Your task to perform on an android device: turn pop-ups on in chrome Image 0: 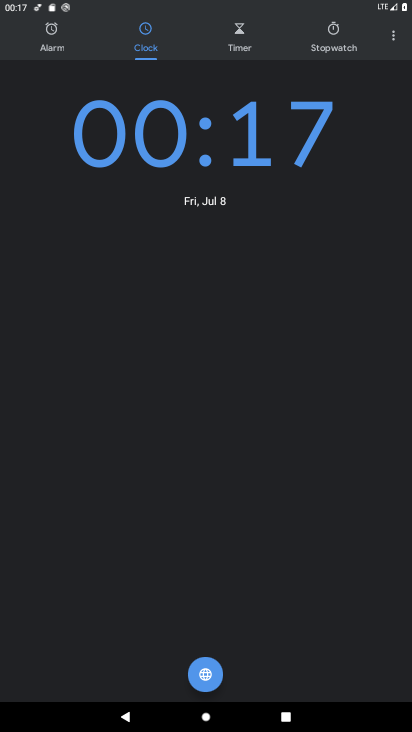
Step 0: press home button
Your task to perform on an android device: turn pop-ups on in chrome Image 1: 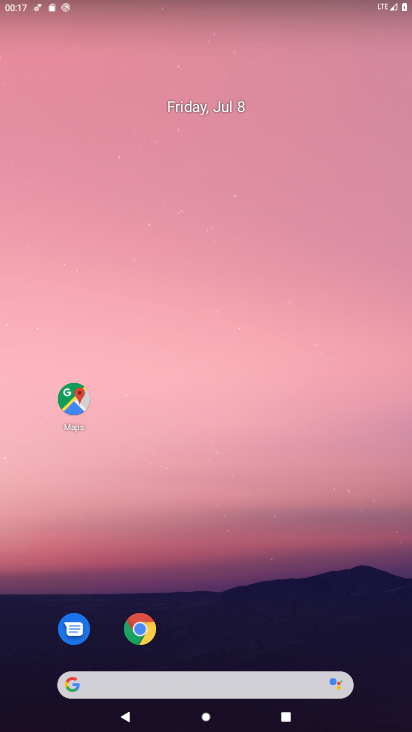
Step 1: click (146, 632)
Your task to perform on an android device: turn pop-ups on in chrome Image 2: 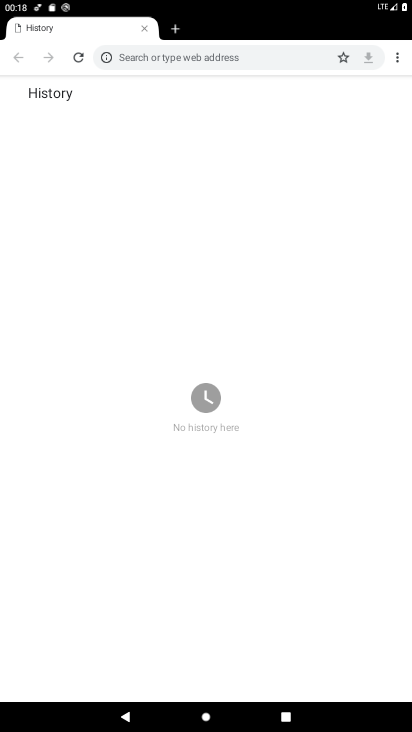
Step 2: click (403, 54)
Your task to perform on an android device: turn pop-ups on in chrome Image 3: 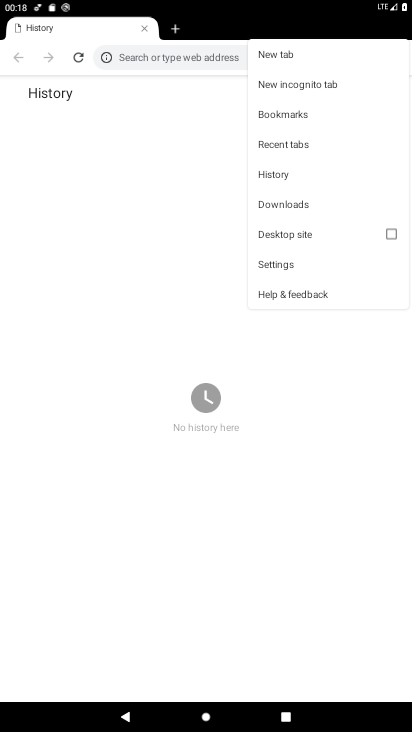
Step 3: click (276, 274)
Your task to perform on an android device: turn pop-ups on in chrome Image 4: 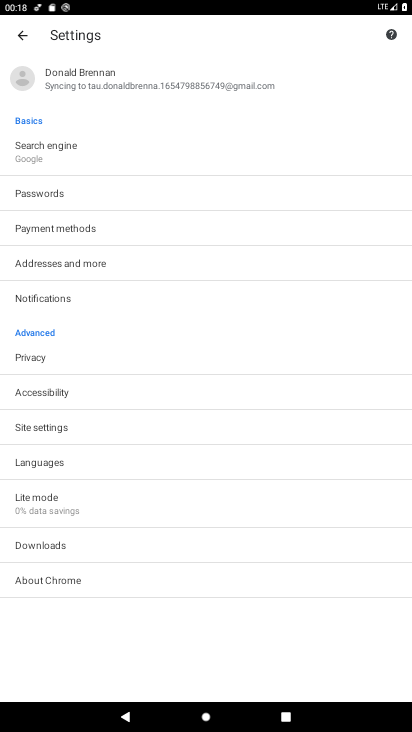
Step 4: click (99, 423)
Your task to perform on an android device: turn pop-ups on in chrome Image 5: 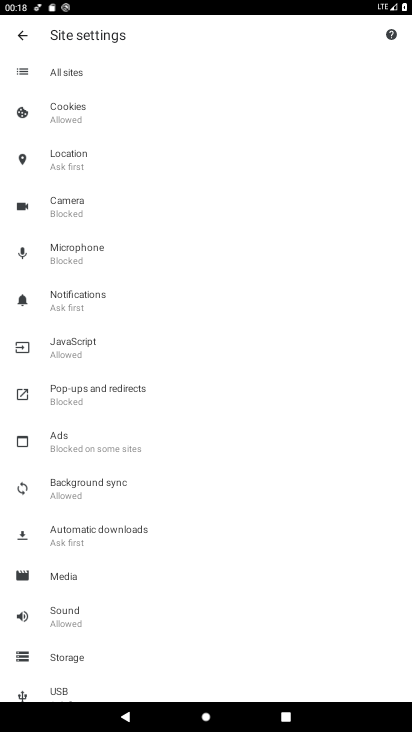
Step 5: click (111, 396)
Your task to perform on an android device: turn pop-ups on in chrome Image 6: 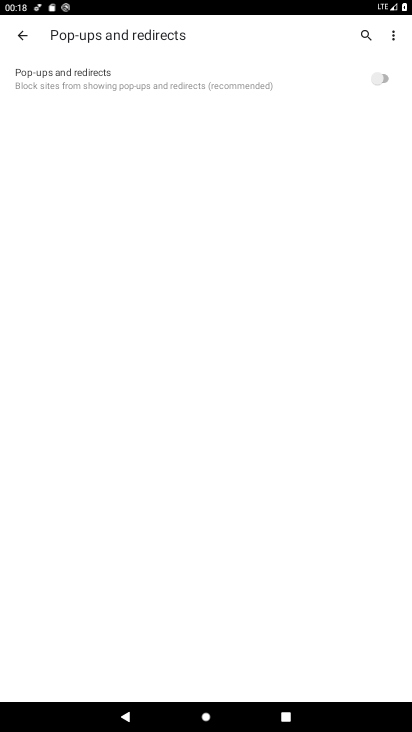
Step 6: click (376, 83)
Your task to perform on an android device: turn pop-ups on in chrome Image 7: 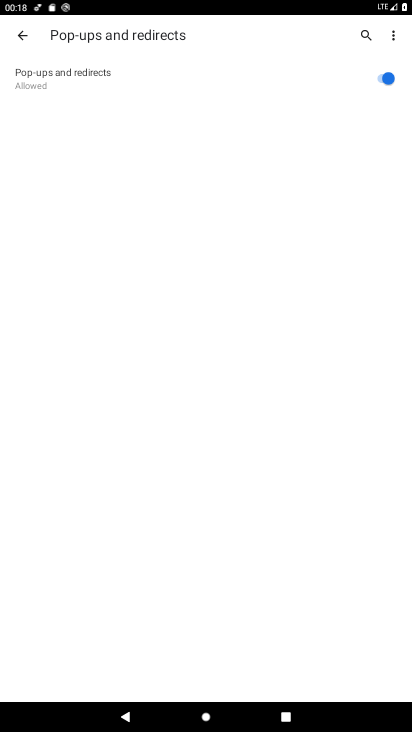
Step 7: task complete